Your task to perform on an android device: Is it going to rain today? Image 0: 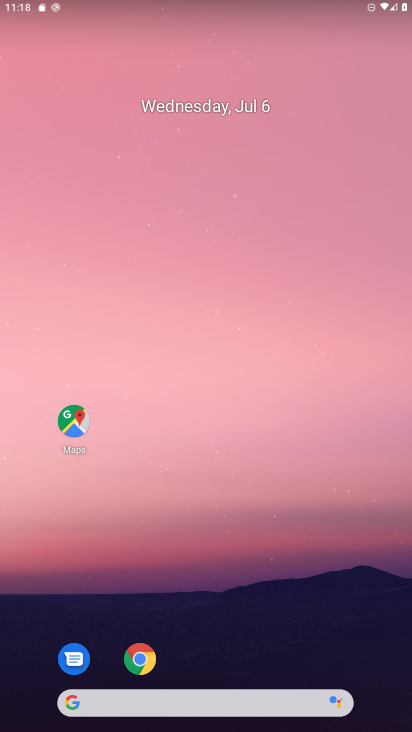
Step 0: click (174, 706)
Your task to perform on an android device: Is it going to rain today? Image 1: 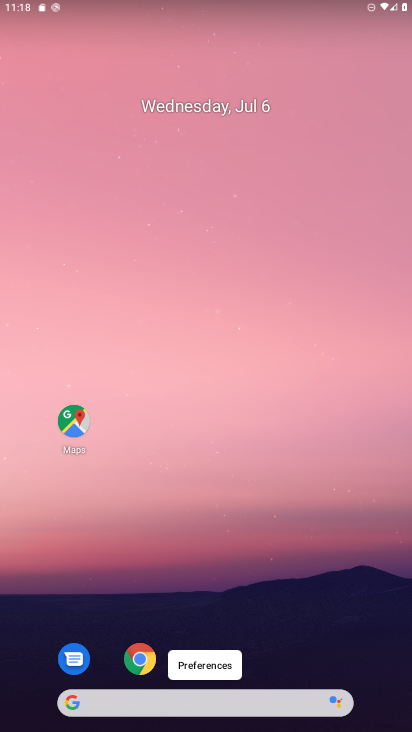
Step 1: click (164, 707)
Your task to perform on an android device: Is it going to rain today? Image 2: 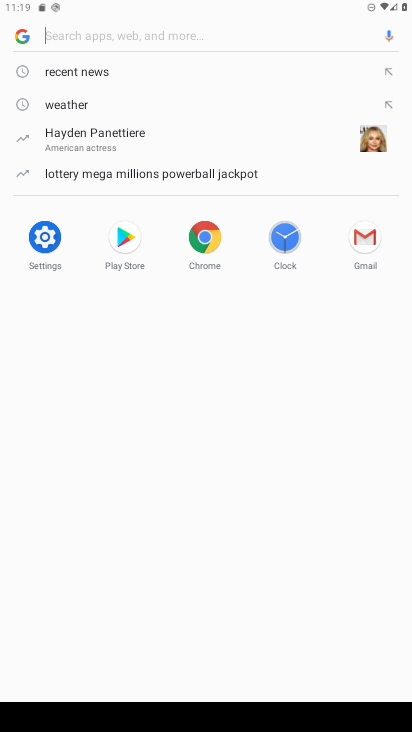
Step 2: click (88, 94)
Your task to perform on an android device: Is it going to rain today? Image 3: 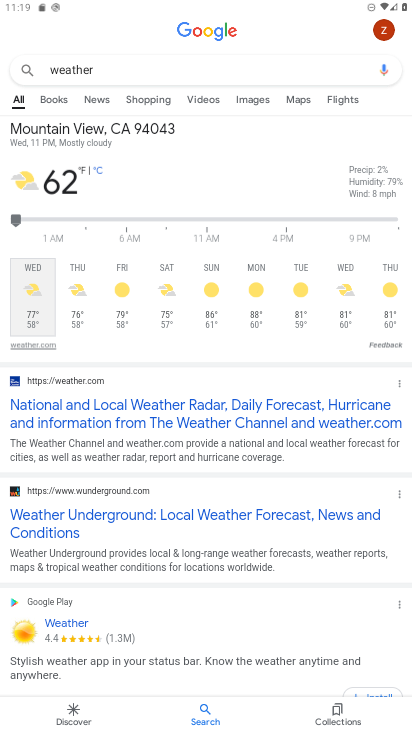
Step 3: task complete